Your task to perform on an android device: change notifications settings Image 0: 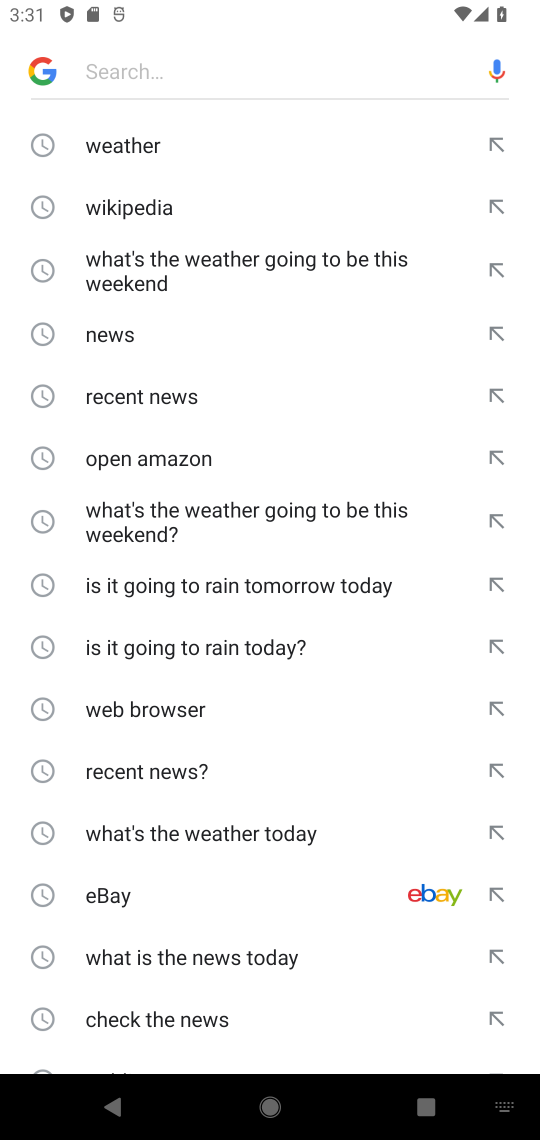
Step 0: press home button
Your task to perform on an android device: change notifications settings Image 1: 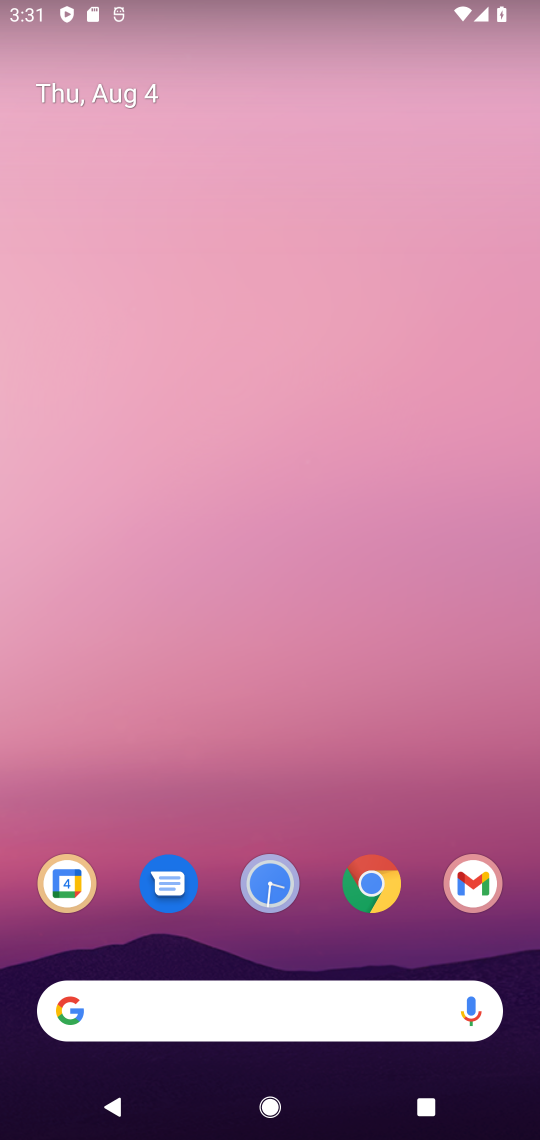
Step 1: drag from (454, 818) to (227, 70)
Your task to perform on an android device: change notifications settings Image 2: 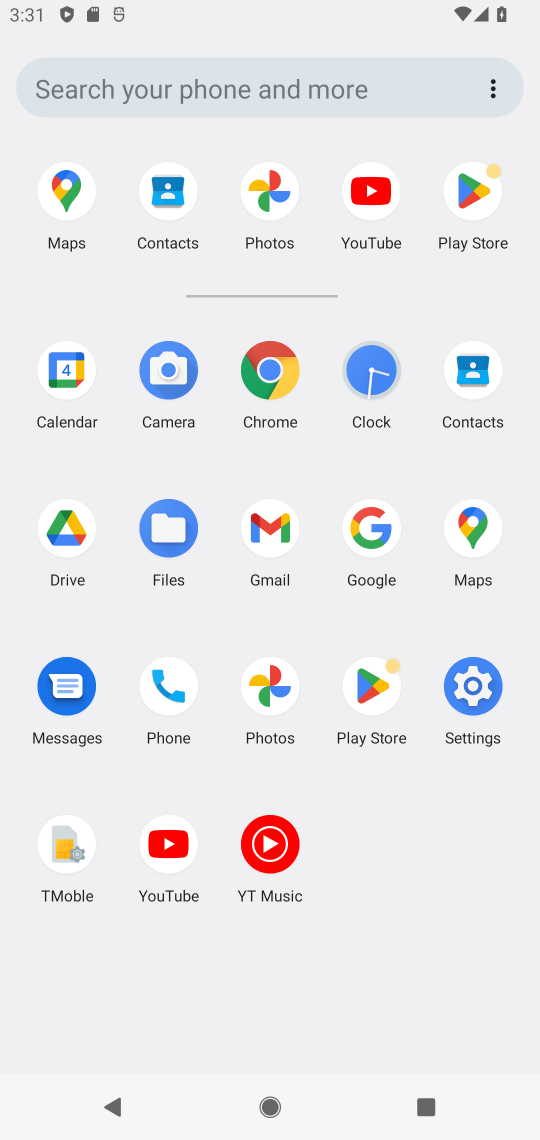
Step 2: click (502, 677)
Your task to perform on an android device: change notifications settings Image 3: 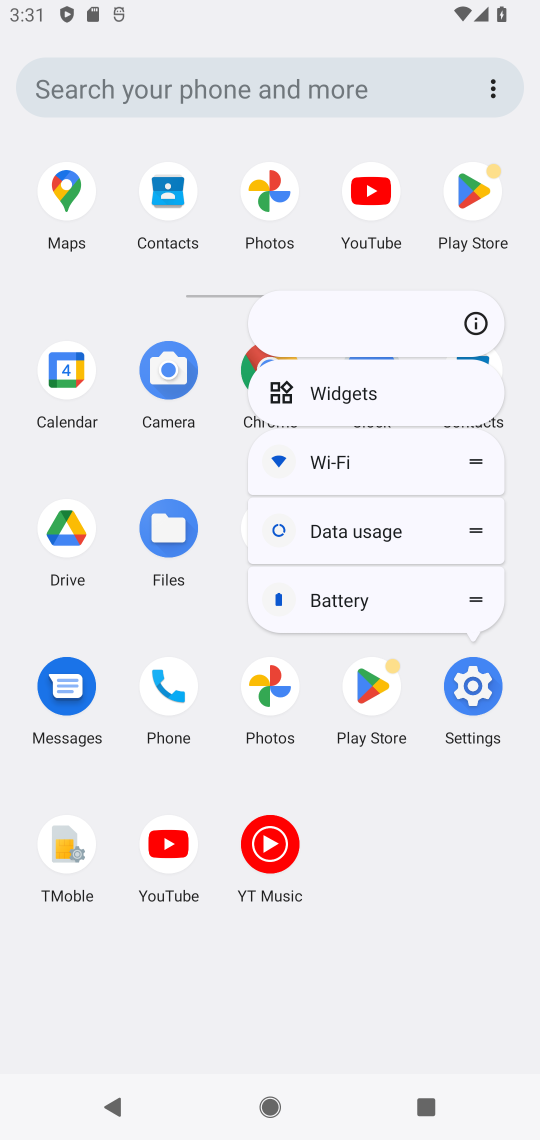
Step 3: click (469, 692)
Your task to perform on an android device: change notifications settings Image 4: 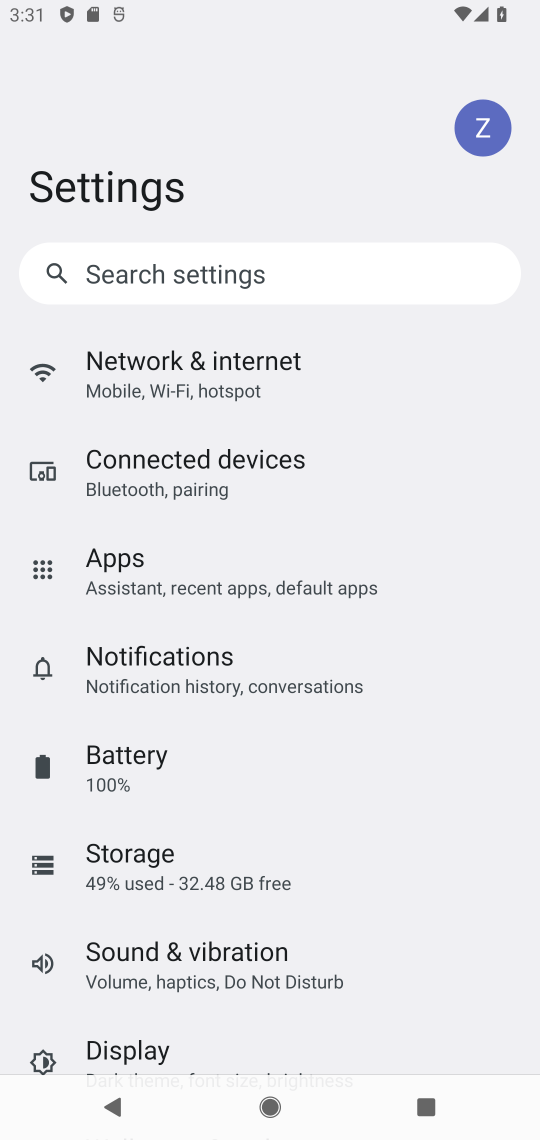
Step 4: click (209, 684)
Your task to perform on an android device: change notifications settings Image 5: 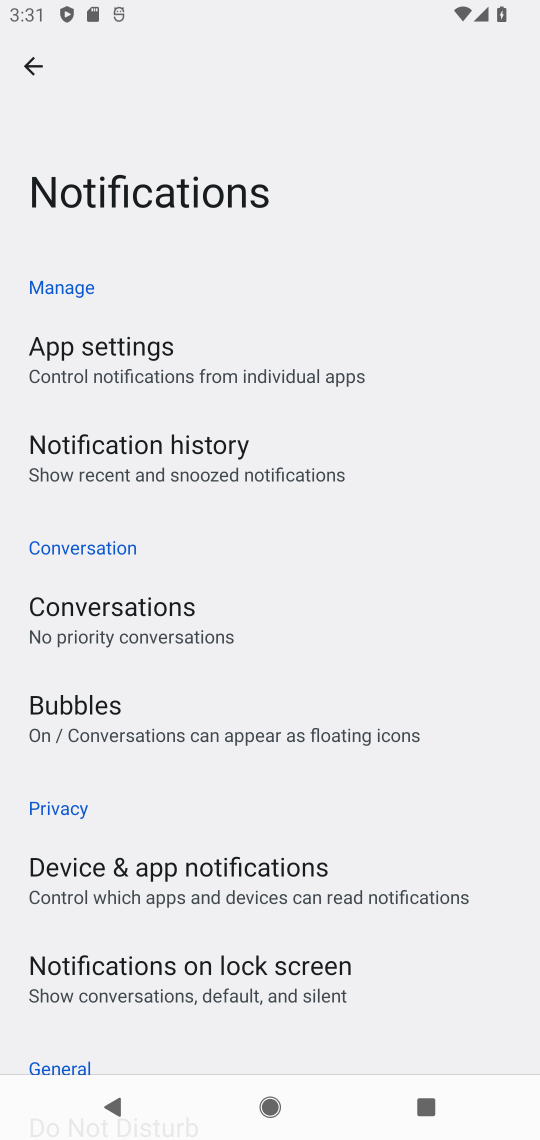
Step 5: task complete